Your task to perform on an android device: stop showing notifications on the lock screen Image 0: 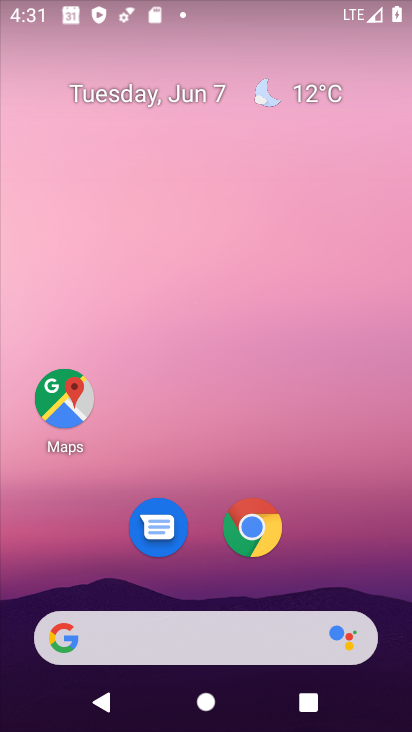
Step 0: drag from (332, 550) to (290, 123)
Your task to perform on an android device: stop showing notifications on the lock screen Image 1: 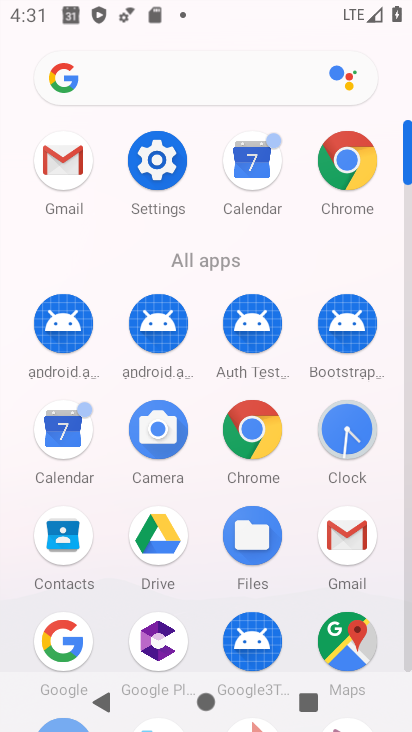
Step 1: click (156, 159)
Your task to perform on an android device: stop showing notifications on the lock screen Image 2: 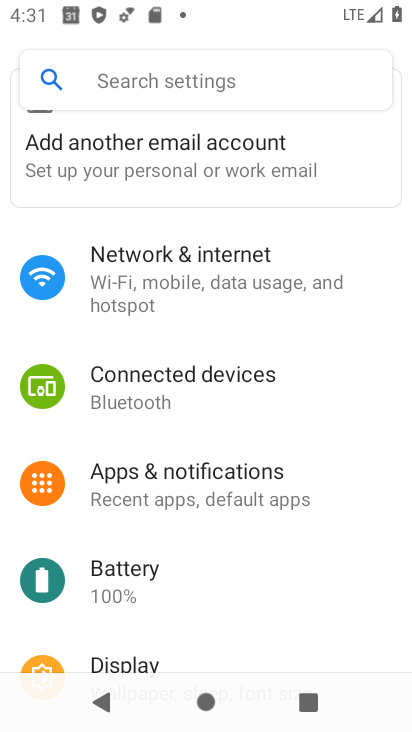
Step 2: click (172, 486)
Your task to perform on an android device: stop showing notifications on the lock screen Image 3: 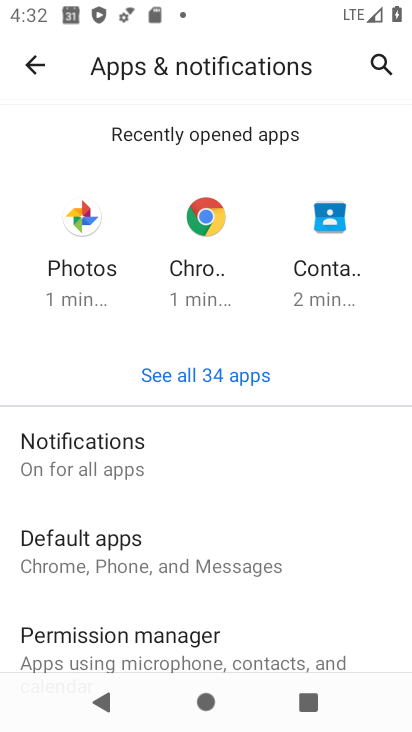
Step 3: click (114, 441)
Your task to perform on an android device: stop showing notifications on the lock screen Image 4: 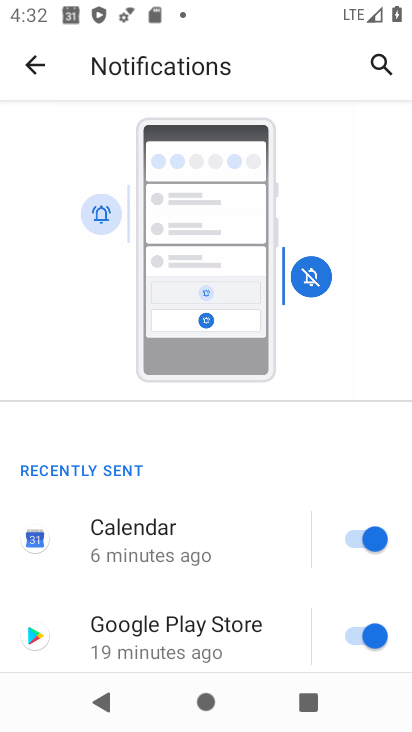
Step 4: drag from (238, 564) to (210, 371)
Your task to perform on an android device: stop showing notifications on the lock screen Image 5: 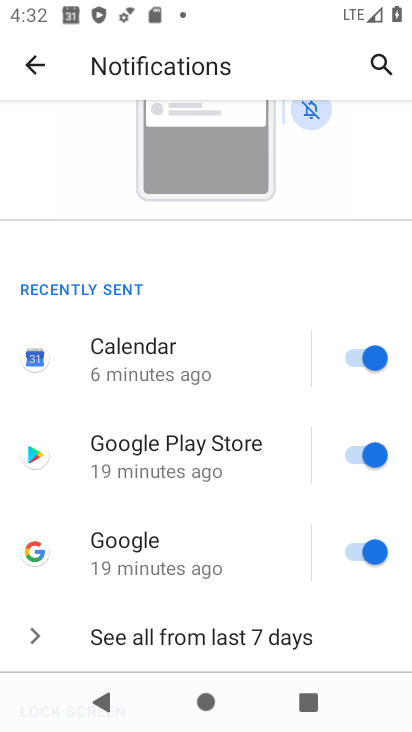
Step 5: drag from (145, 605) to (190, 455)
Your task to perform on an android device: stop showing notifications on the lock screen Image 6: 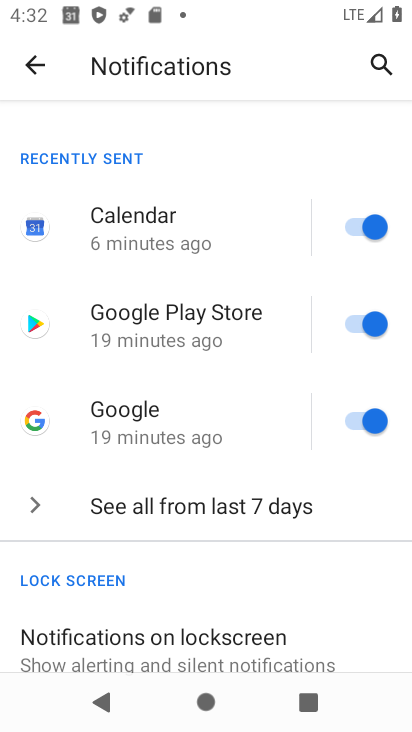
Step 6: drag from (152, 619) to (193, 502)
Your task to perform on an android device: stop showing notifications on the lock screen Image 7: 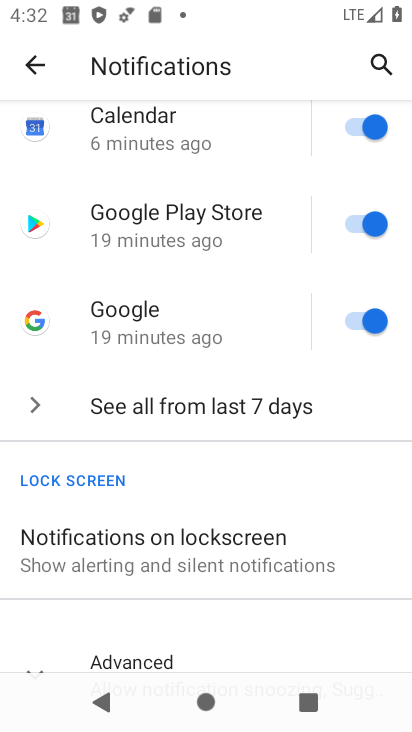
Step 7: click (162, 544)
Your task to perform on an android device: stop showing notifications on the lock screen Image 8: 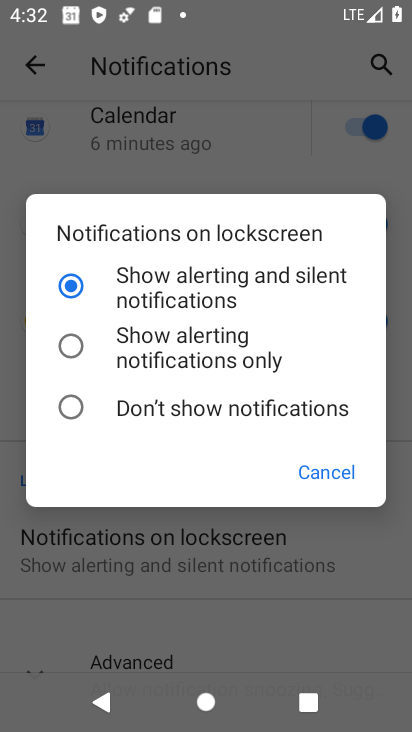
Step 8: click (69, 404)
Your task to perform on an android device: stop showing notifications on the lock screen Image 9: 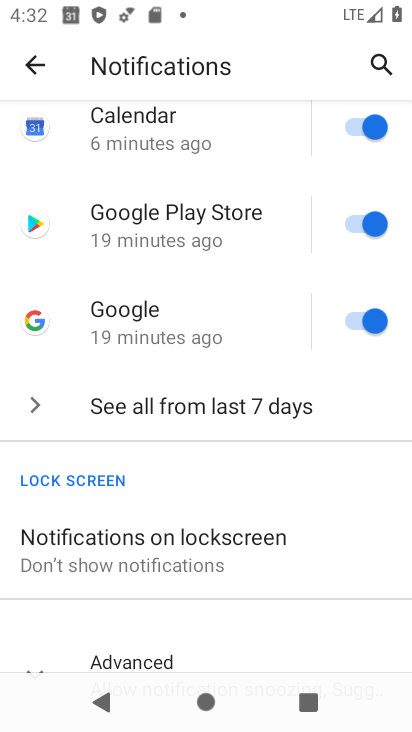
Step 9: task complete